Your task to perform on an android device: Is it going to rain today? Image 0: 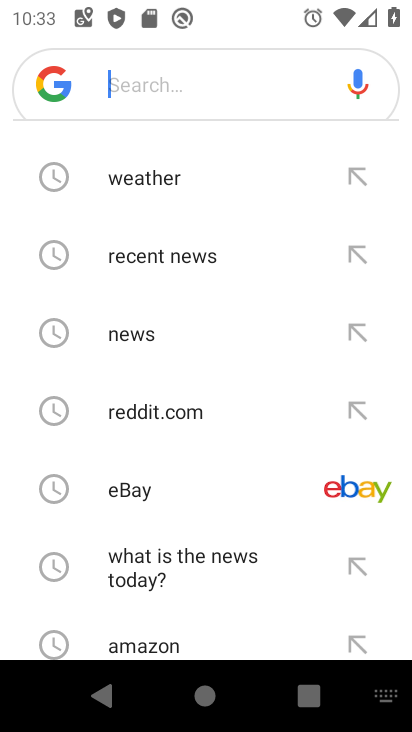
Step 0: press home button
Your task to perform on an android device: Is it going to rain today? Image 1: 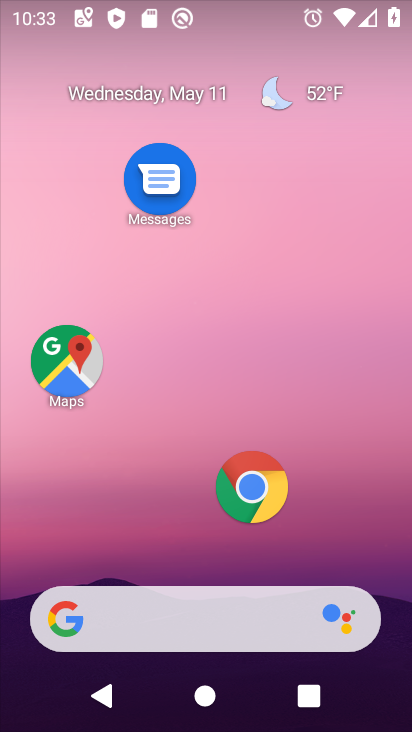
Step 1: drag from (185, 554) to (191, 148)
Your task to perform on an android device: Is it going to rain today? Image 2: 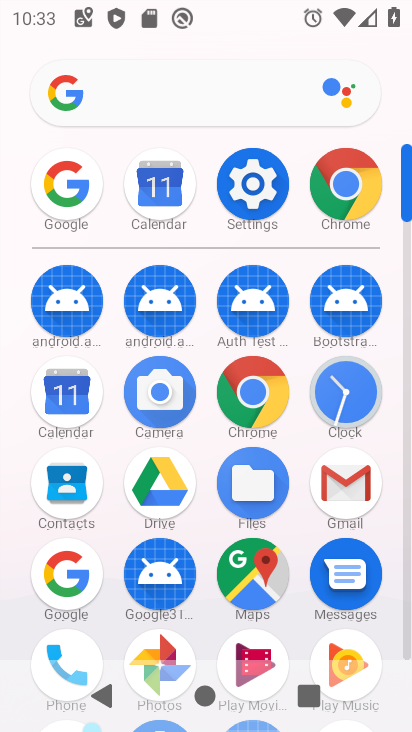
Step 2: click (72, 570)
Your task to perform on an android device: Is it going to rain today? Image 3: 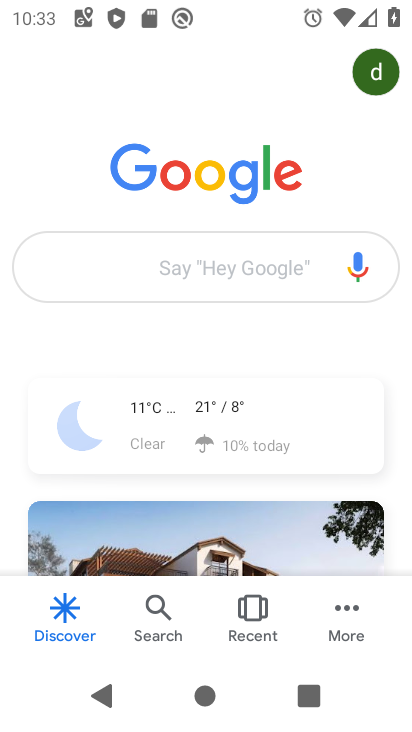
Step 3: click (222, 399)
Your task to perform on an android device: Is it going to rain today? Image 4: 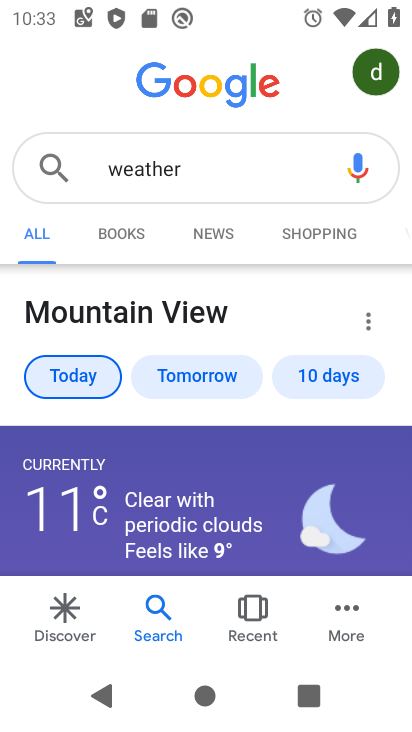
Step 4: drag from (256, 486) to (272, 230)
Your task to perform on an android device: Is it going to rain today? Image 5: 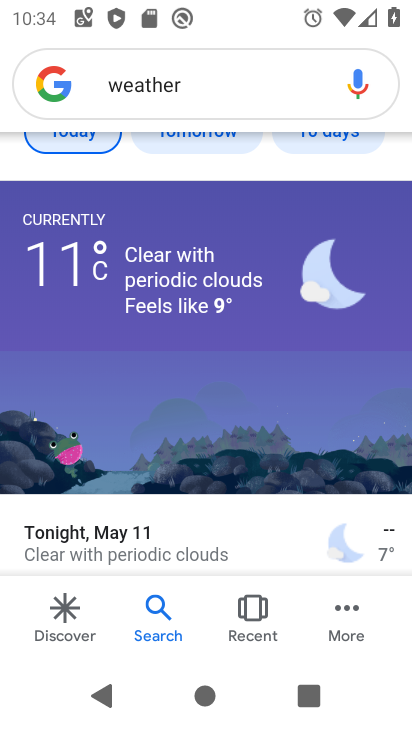
Step 5: drag from (182, 444) to (247, 228)
Your task to perform on an android device: Is it going to rain today? Image 6: 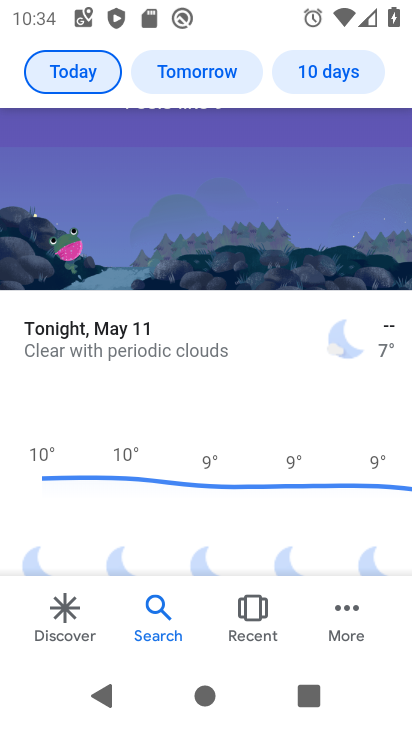
Step 6: drag from (242, 434) to (275, 247)
Your task to perform on an android device: Is it going to rain today? Image 7: 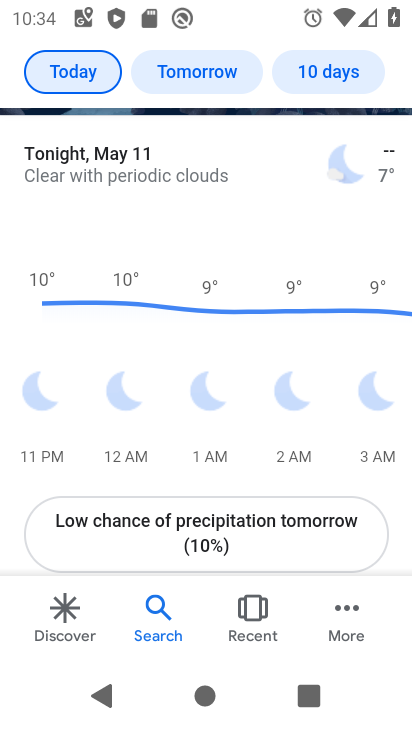
Step 7: click (263, 394)
Your task to perform on an android device: Is it going to rain today? Image 8: 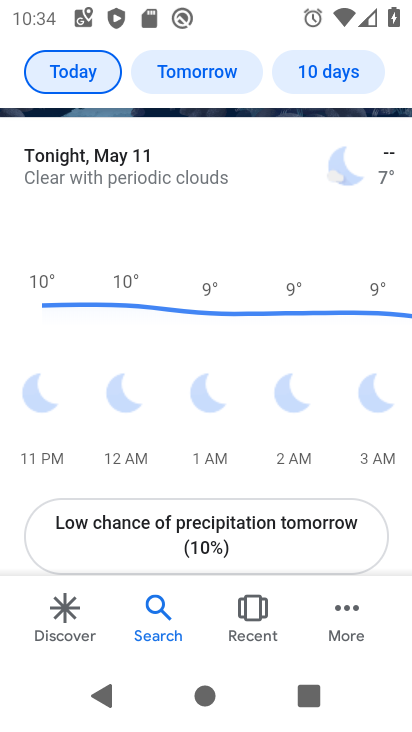
Step 8: task complete